Your task to perform on an android device: open chrome and create a bookmark for the current page Image 0: 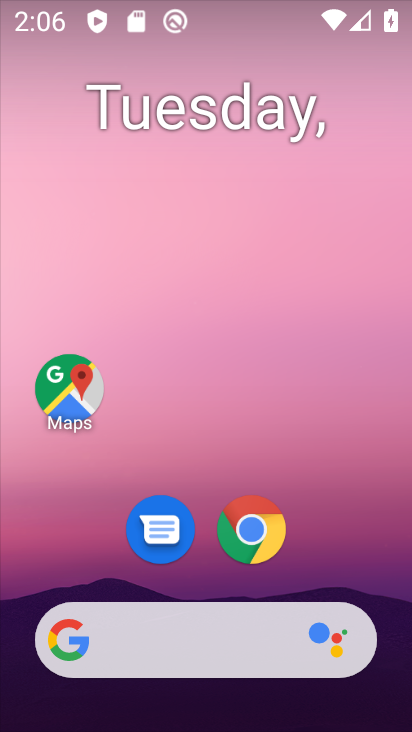
Step 0: click (263, 531)
Your task to perform on an android device: open chrome and create a bookmark for the current page Image 1: 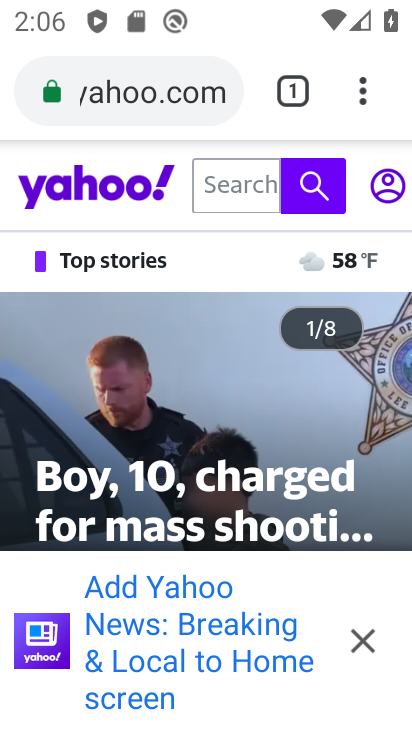
Step 1: click (393, 116)
Your task to perform on an android device: open chrome and create a bookmark for the current page Image 2: 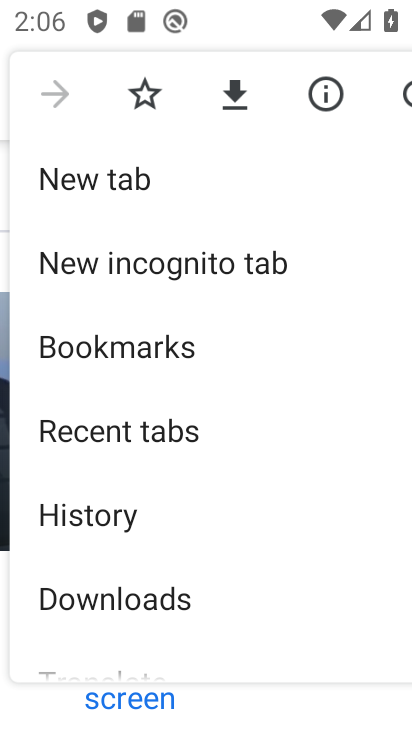
Step 2: click (139, 105)
Your task to perform on an android device: open chrome and create a bookmark for the current page Image 3: 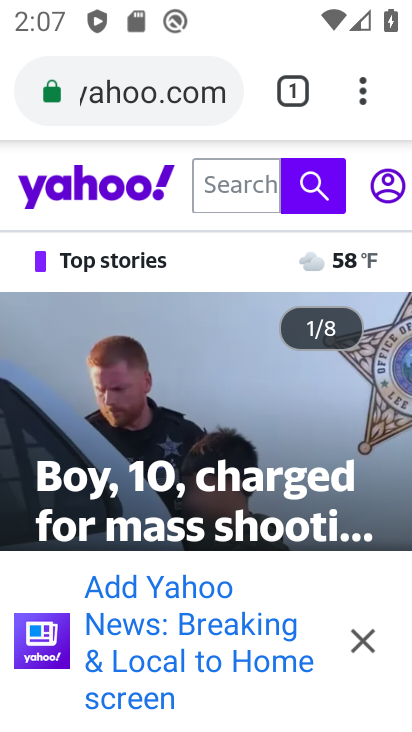
Step 3: task complete